Your task to perform on an android device: Open my contact list Image 0: 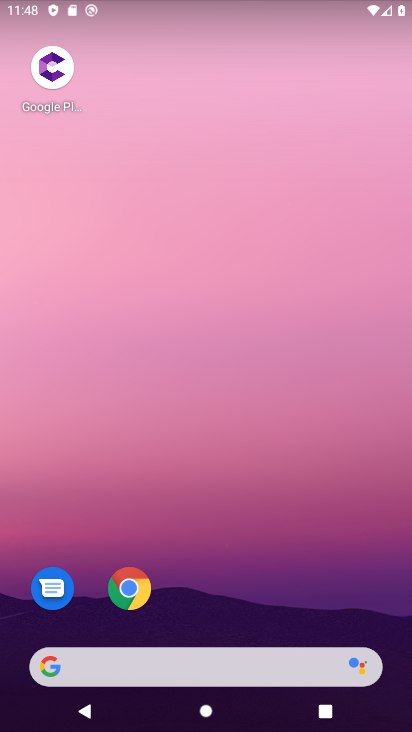
Step 0: drag from (338, 529) to (307, 122)
Your task to perform on an android device: Open my contact list Image 1: 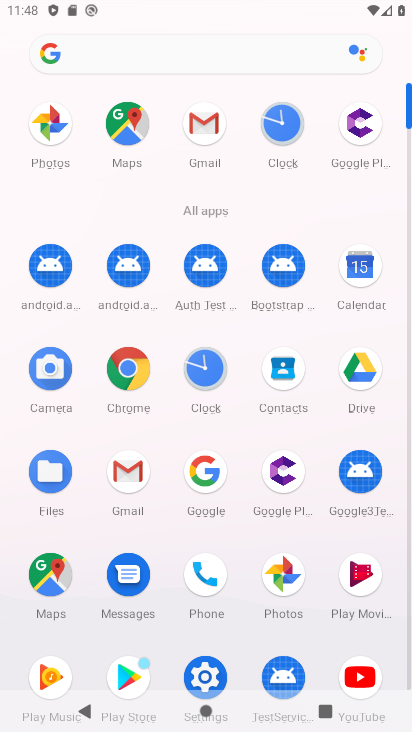
Step 1: click (285, 360)
Your task to perform on an android device: Open my contact list Image 2: 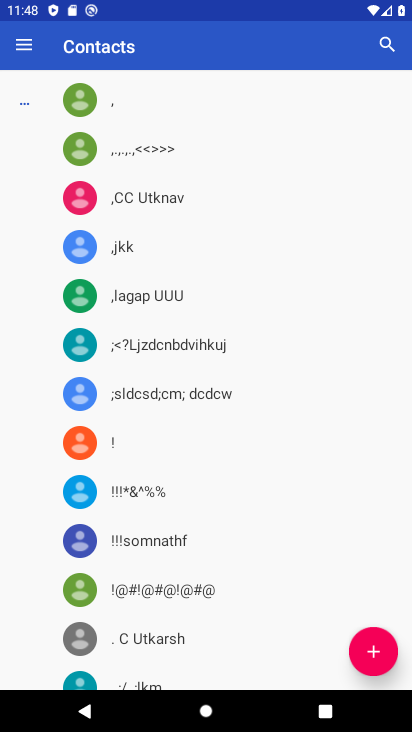
Step 2: task complete